Your task to perform on an android device: Open Google Maps Image 0: 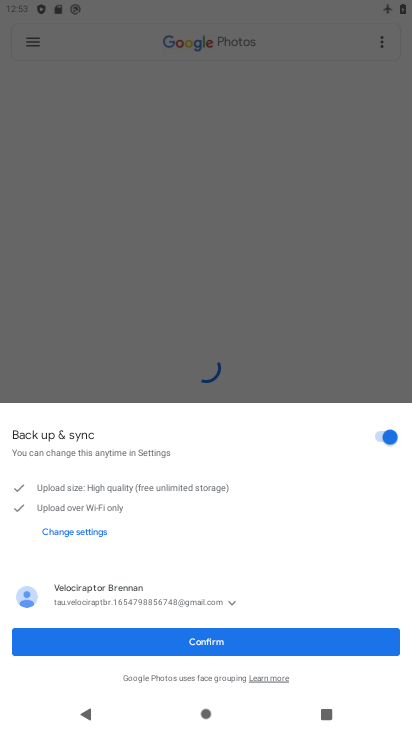
Step 0: press home button
Your task to perform on an android device: Open Google Maps Image 1: 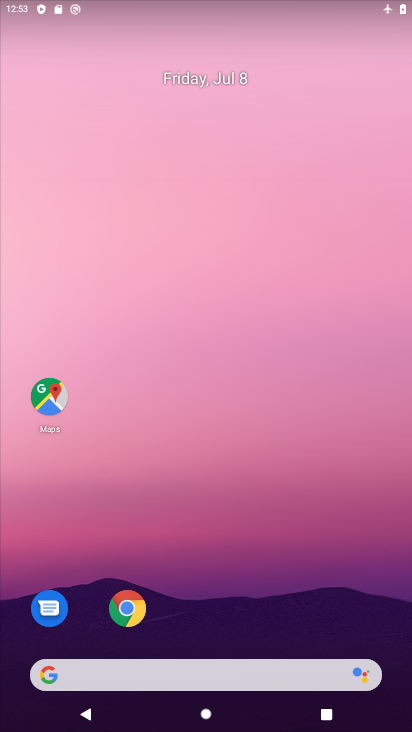
Step 1: click (50, 398)
Your task to perform on an android device: Open Google Maps Image 2: 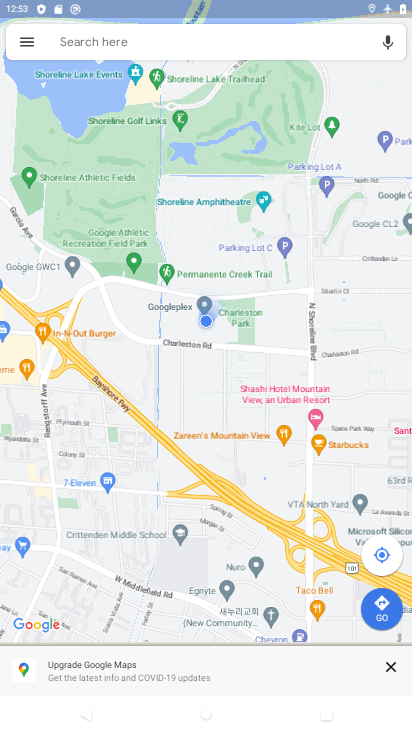
Step 2: task complete